Your task to perform on an android device: turn on the 24-hour format for clock Image 0: 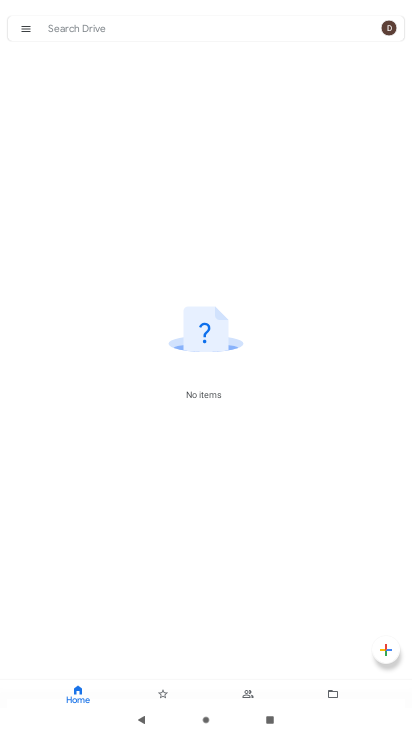
Step 0: press home button
Your task to perform on an android device: turn on the 24-hour format for clock Image 1: 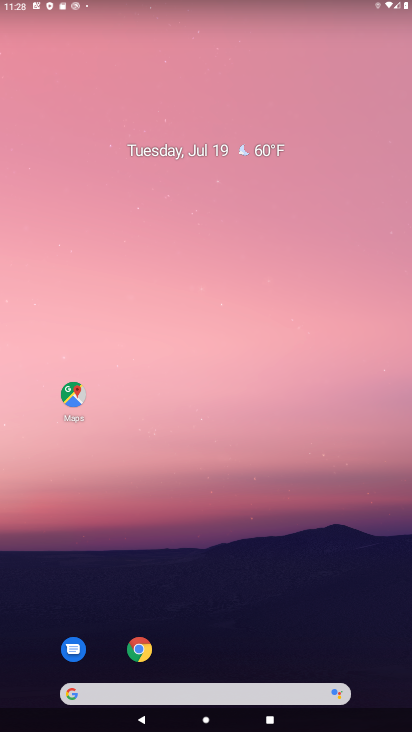
Step 1: drag from (194, 693) to (213, 172)
Your task to perform on an android device: turn on the 24-hour format for clock Image 2: 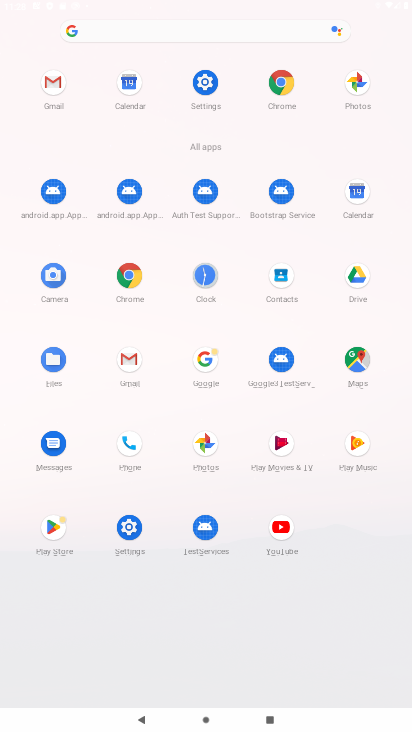
Step 2: click (125, 518)
Your task to perform on an android device: turn on the 24-hour format for clock Image 3: 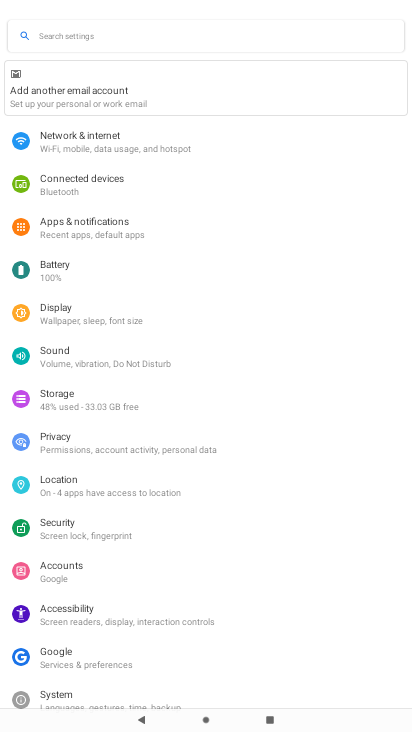
Step 3: click (74, 692)
Your task to perform on an android device: turn on the 24-hour format for clock Image 4: 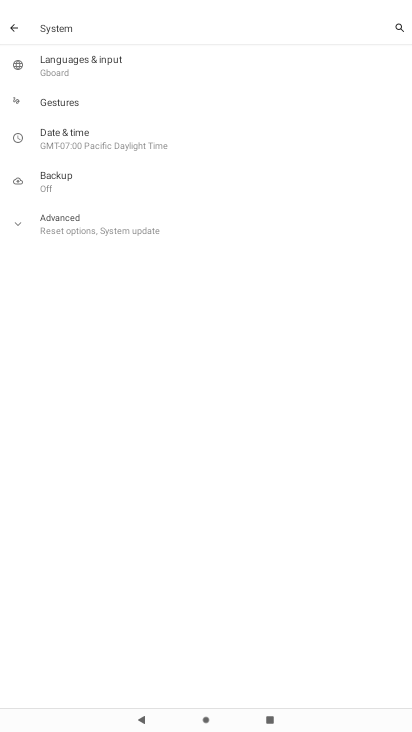
Step 4: click (87, 134)
Your task to perform on an android device: turn on the 24-hour format for clock Image 5: 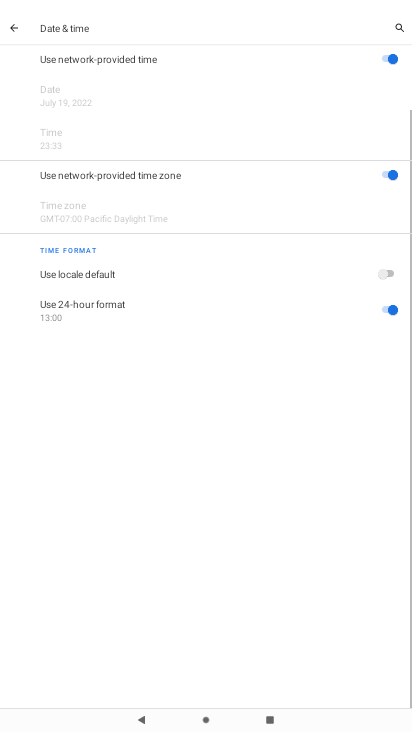
Step 5: task complete